Your task to perform on an android device: Go to network settings Image 0: 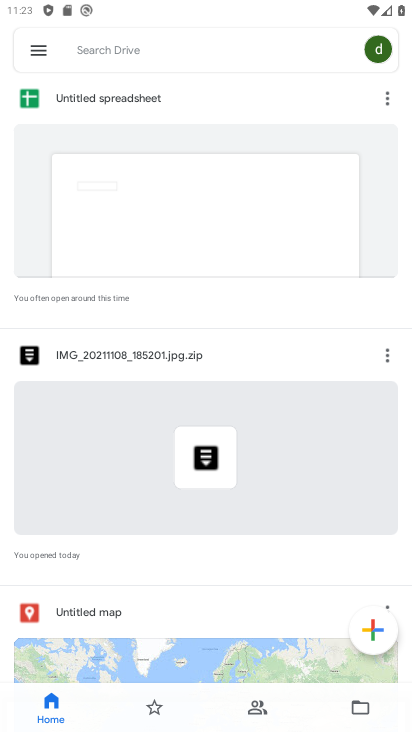
Step 0: press home button
Your task to perform on an android device: Go to network settings Image 1: 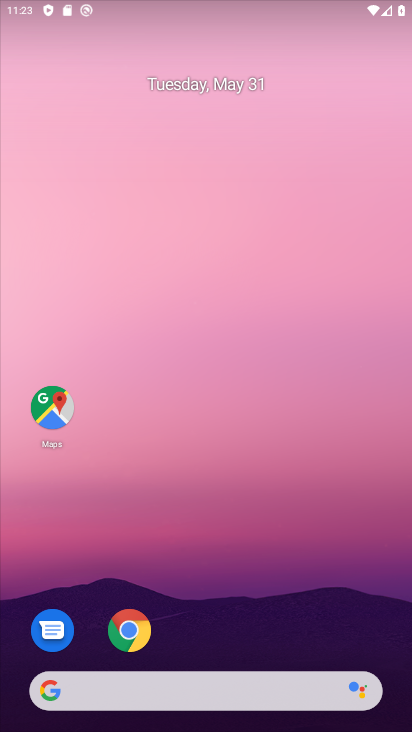
Step 1: drag from (281, 511) to (281, 123)
Your task to perform on an android device: Go to network settings Image 2: 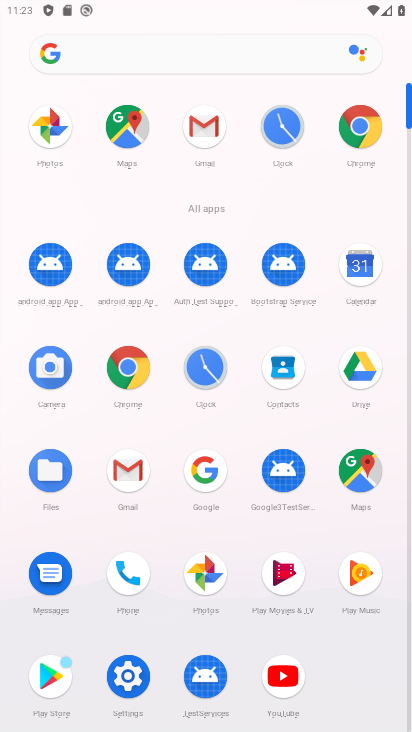
Step 2: click (126, 683)
Your task to perform on an android device: Go to network settings Image 3: 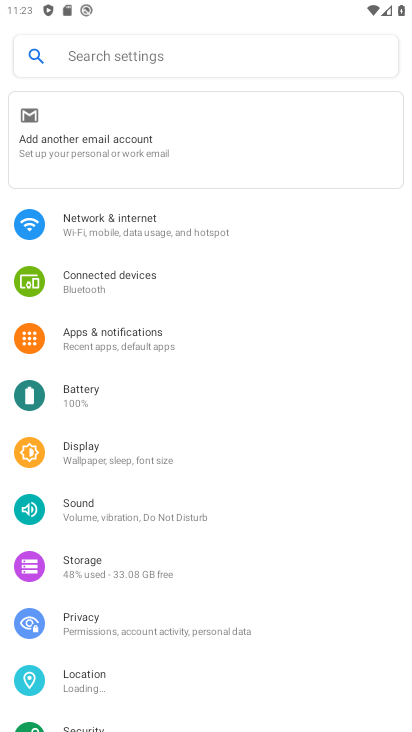
Step 3: click (142, 206)
Your task to perform on an android device: Go to network settings Image 4: 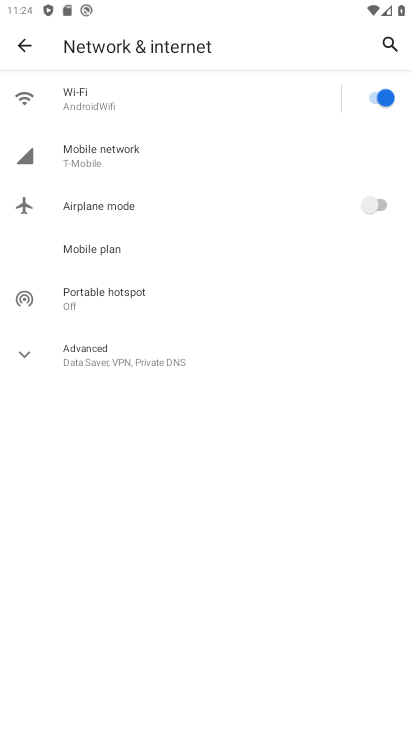
Step 4: click (93, 151)
Your task to perform on an android device: Go to network settings Image 5: 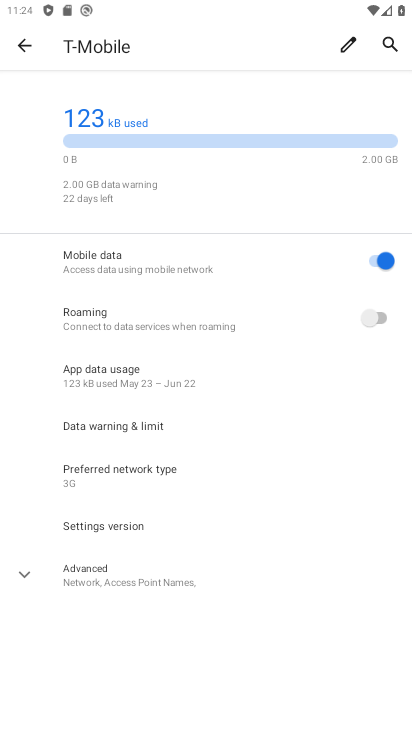
Step 5: task complete